Your task to perform on an android device: check out phone information Image 0: 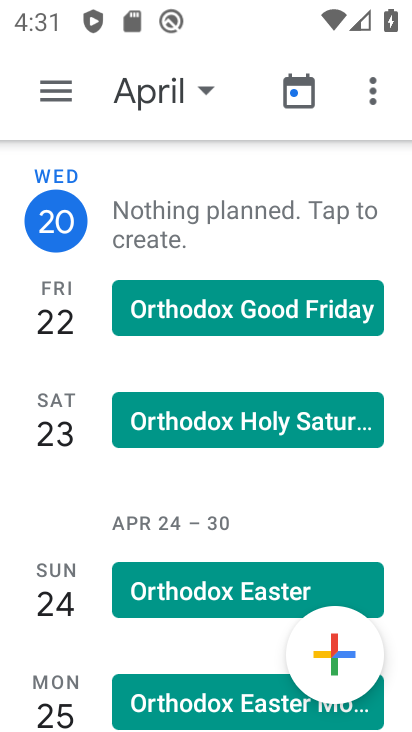
Step 0: press home button
Your task to perform on an android device: check out phone information Image 1: 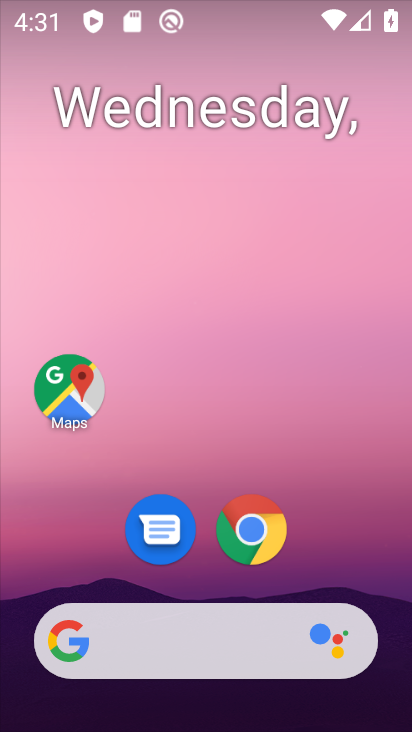
Step 1: drag from (242, 455) to (268, 150)
Your task to perform on an android device: check out phone information Image 2: 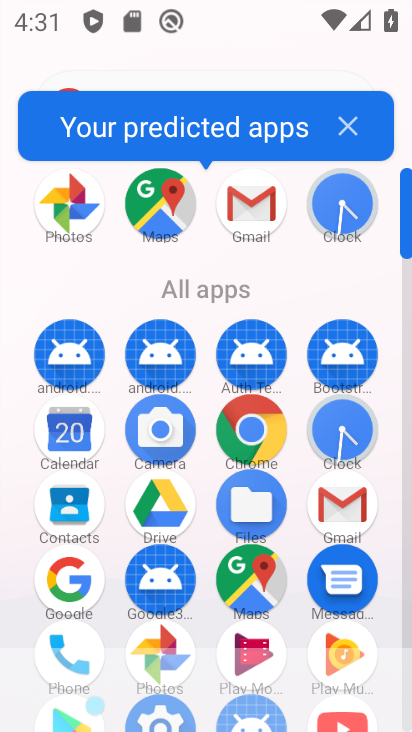
Step 2: drag from (207, 453) to (208, 303)
Your task to perform on an android device: check out phone information Image 3: 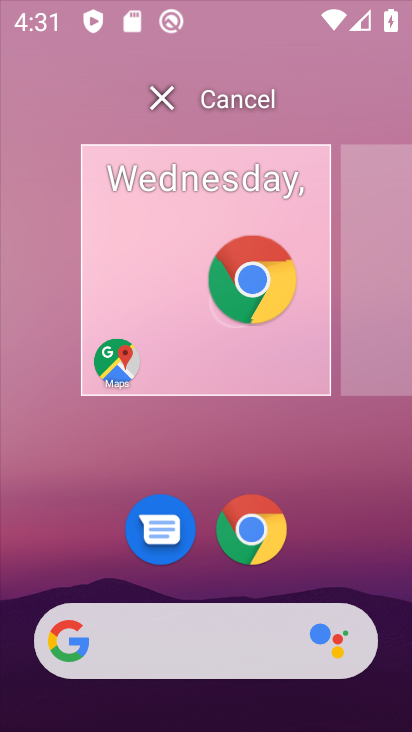
Step 3: drag from (302, 536) to (313, 139)
Your task to perform on an android device: check out phone information Image 4: 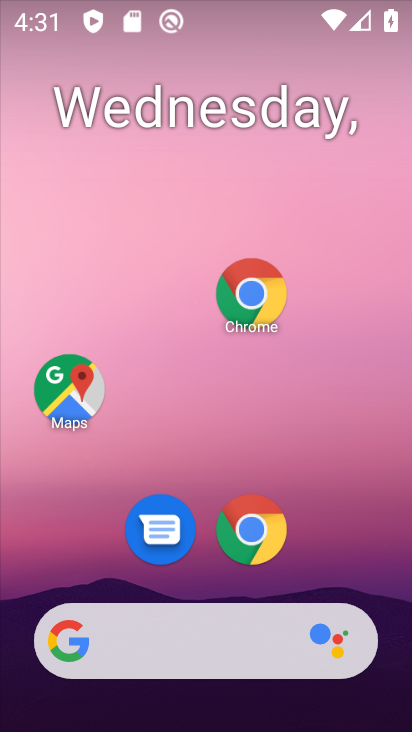
Step 4: drag from (325, 468) to (327, 96)
Your task to perform on an android device: check out phone information Image 5: 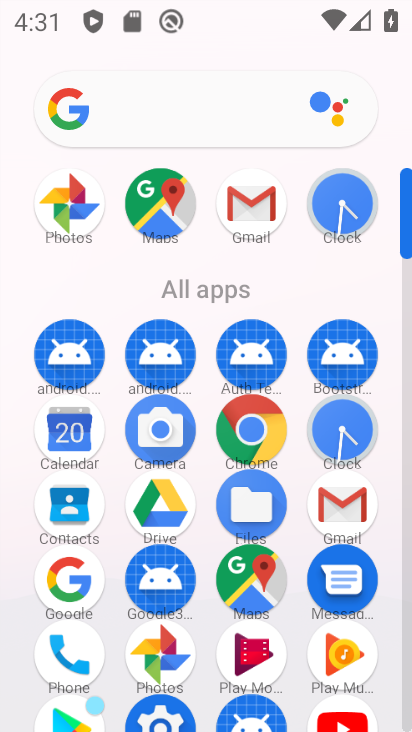
Step 5: drag from (207, 540) to (221, 264)
Your task to perform on an android device: check out phone information Image 6: 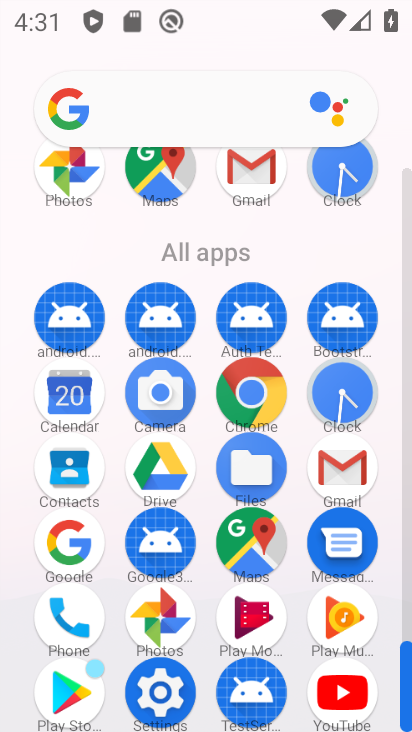
Step 6: click (70, 594)
Your task to perform on an android device: check out phone information Image 7: 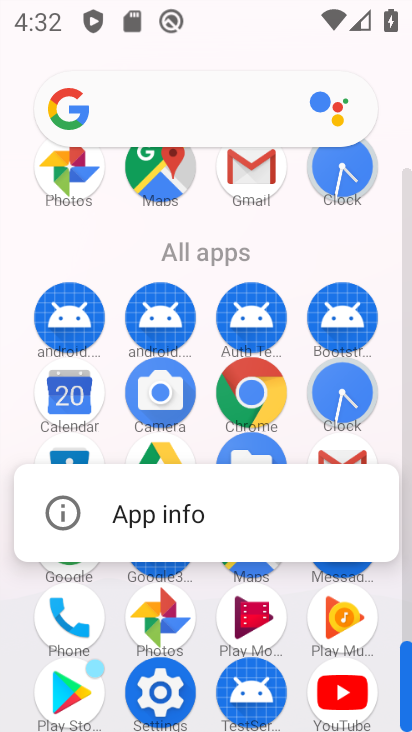
Step 7: click (75, 611)
Your task to perform on an android device: check out phone information Image 8: 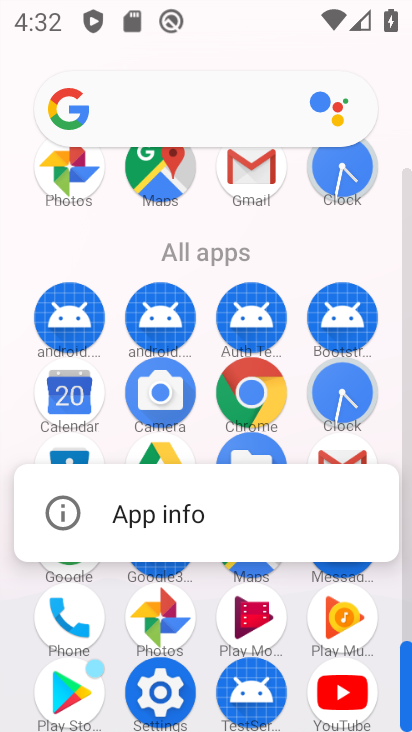
Step 8: click (85, 622)
Your task to perform on an android device: check out phone information Image 9: 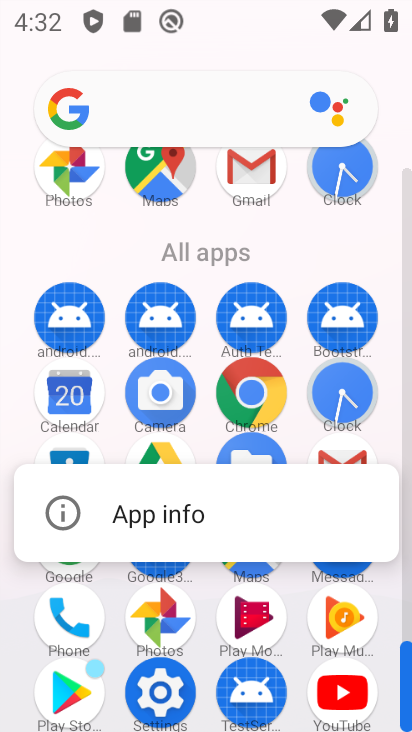
Step 9: click (91, 622)
Your task to perform on an android device: check out phone information Image 10: 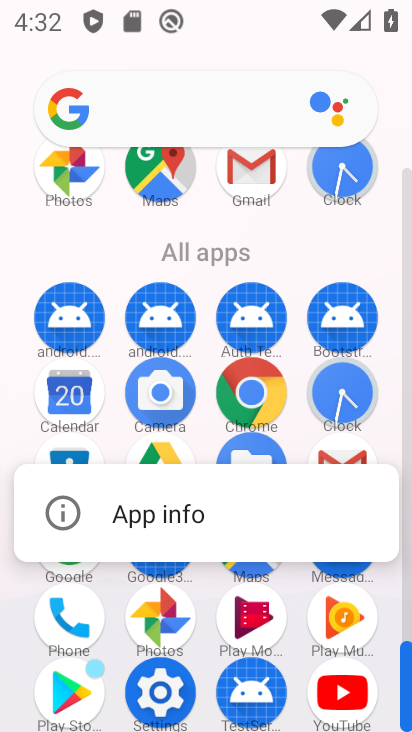
Step 10: click (109, 593)
Your task to perform on an android device: check out phone information Image 11: 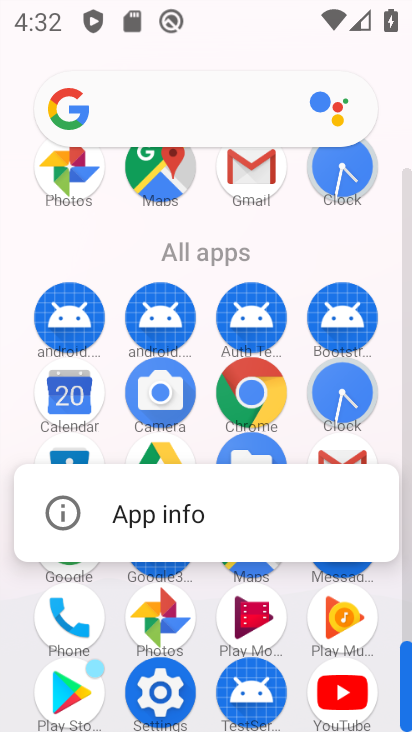
Step 11: click (66, 630)
Your task to perform on an android device: check out phone information Image 12: 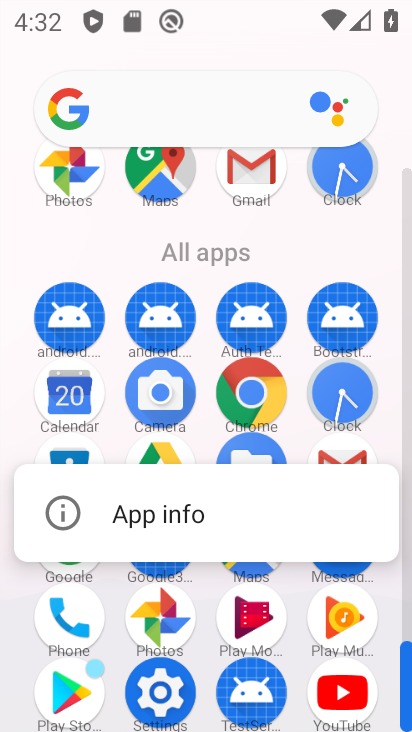
Step 12: click (74, 614)
Your task to perform on an android device: check out phone information Image 13: 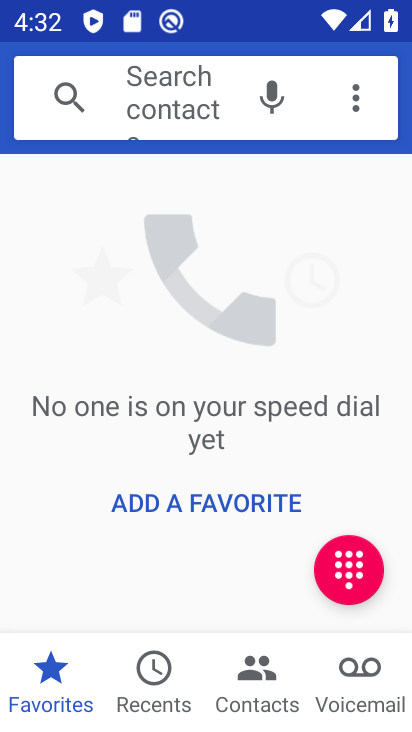
Step 13: click (362, 99)
Your task to perform on an android device: check out phone information Image 14: 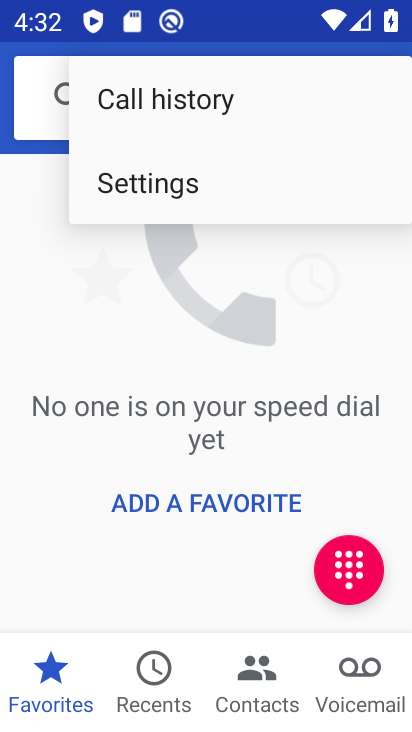
Step 14: click (201, 189)
Your task to perform on an android device: check out phone information Image 15: 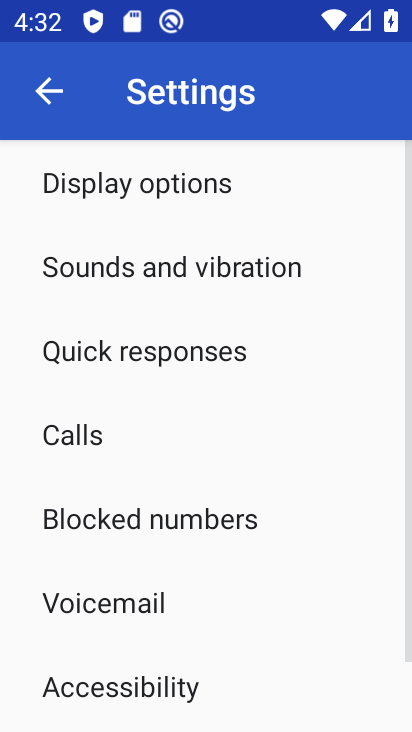
Step 15: drag from (185, 549) to (188, 143)
Your task to perform on an android device: check out phone information Image 16: 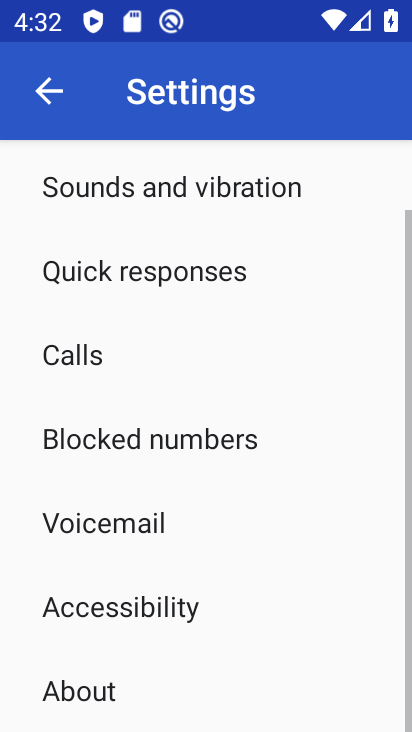
Step 16: click (98, 680)
Your task to perform on an android device: check out phone information Image 17: 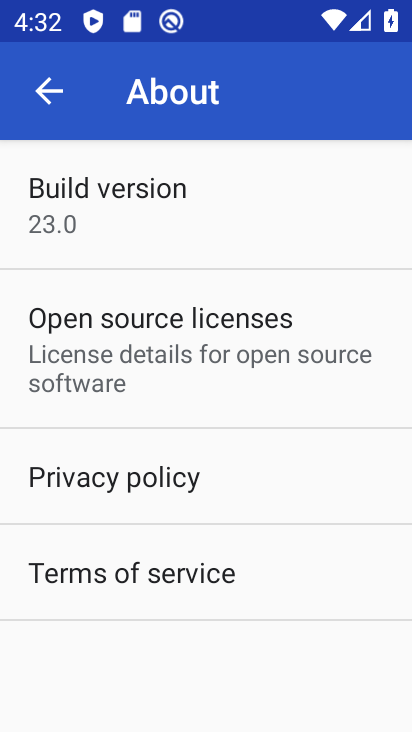
Step 17: task complete